Your task to perform on an android device: turn on showing notifications on the lock screen Image 0: 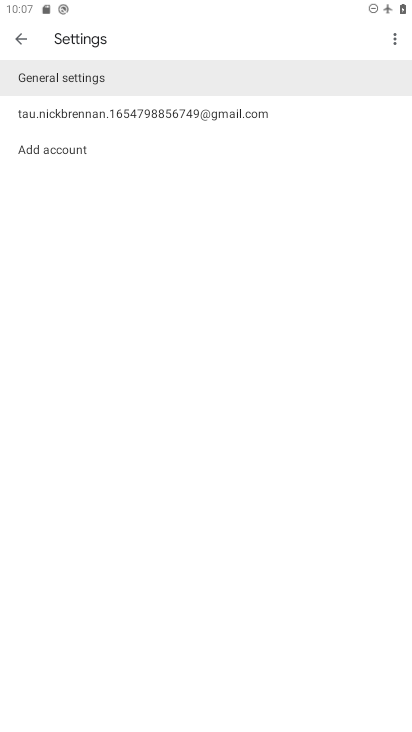
Step 0: press home button
Your task to perform on an android device: turn on showing notifications on the lock screen Image 1: 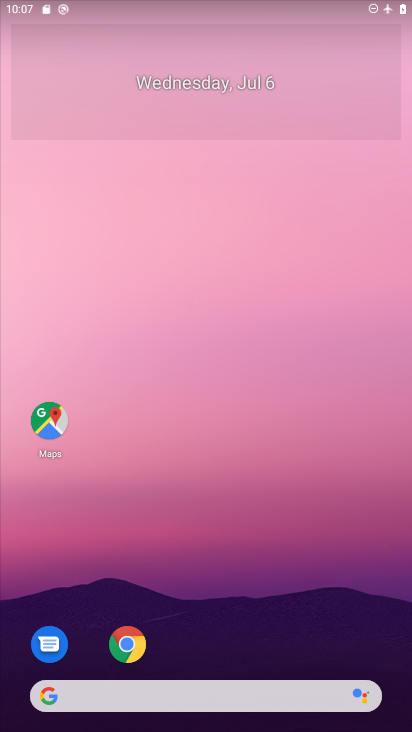
Step 1: drag from (262, 618) to (219, 187)
Your task to perform on an android device: turn on showing notifications on the lock screen Image 2: 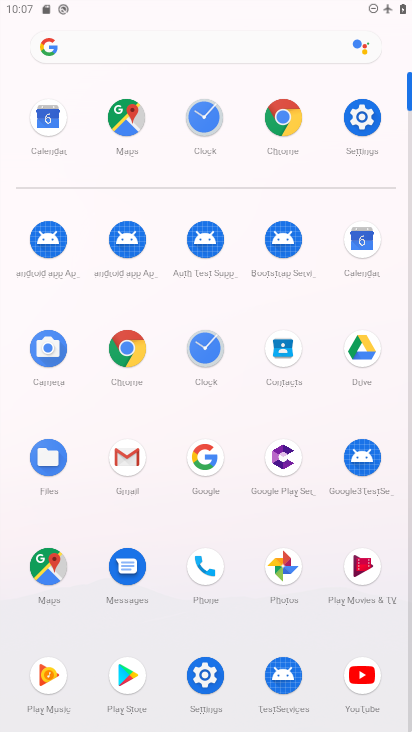
Step 2: click (352, 135)
Your task to perform on an android device: turn on showing notifications on the lock screen Image 3: 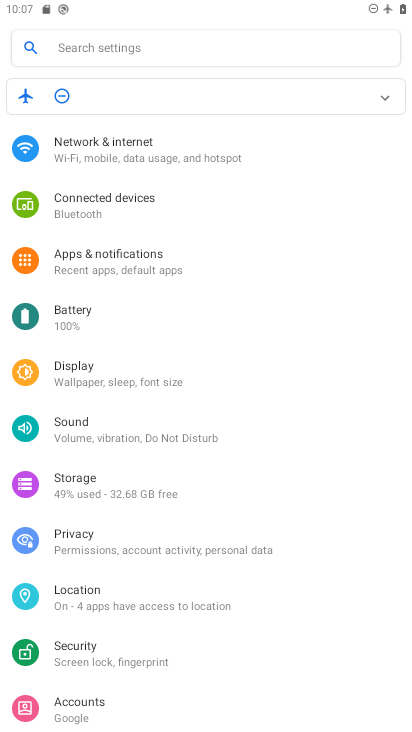
Step 3: click (156, 274)
Your task to perform on an android device: turn on showing notifications on the lock screen Image 4: 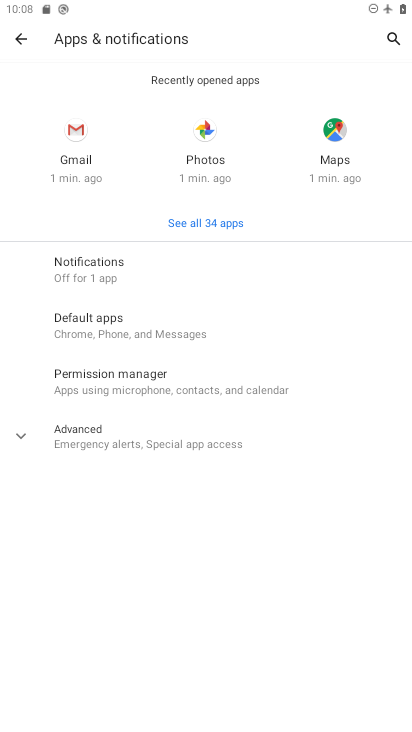
Step 4: click (127, 282)
Your task to perform on an android device: turn on showing notifications on the lock screen Image 5: 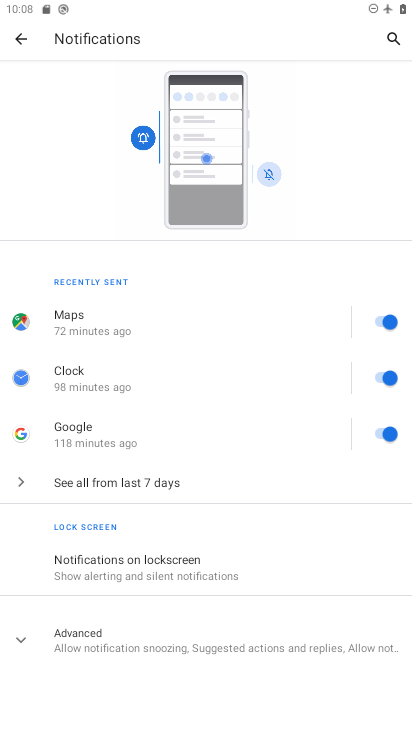
Step 5: click (213, 582)
Your task to perform on an android device: turn on showing notifications on the lock screen Image 6: 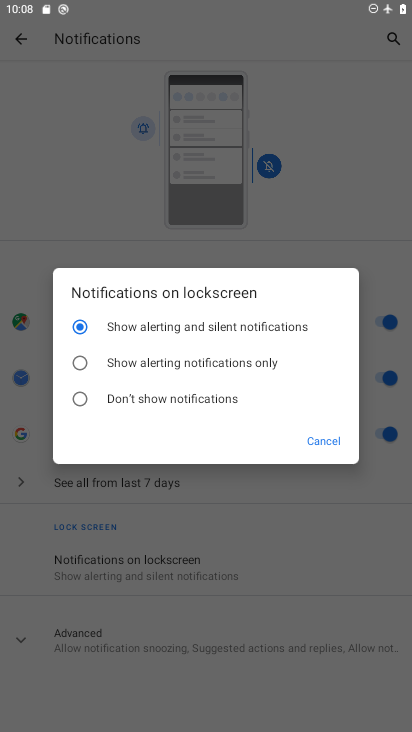
Step 6: task complete